Your task to perform on an android device: Open accessibility settings Image 0: 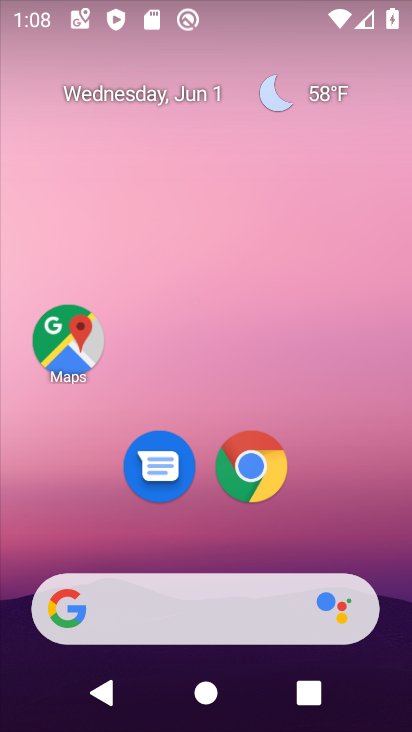
Step 0: drag from (393, 602) to (258, 243)
Your task to perform on an android device: Open accessibility settings Image 1: 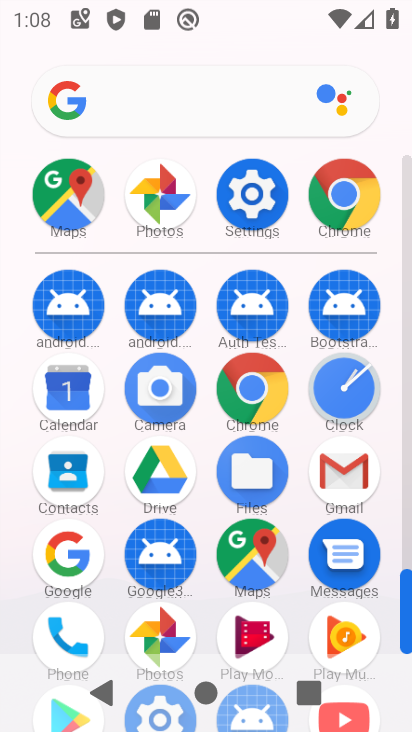
Step 1: click (259, 183)
Your task to perform on an android device: Open accessibility settings Image 2: 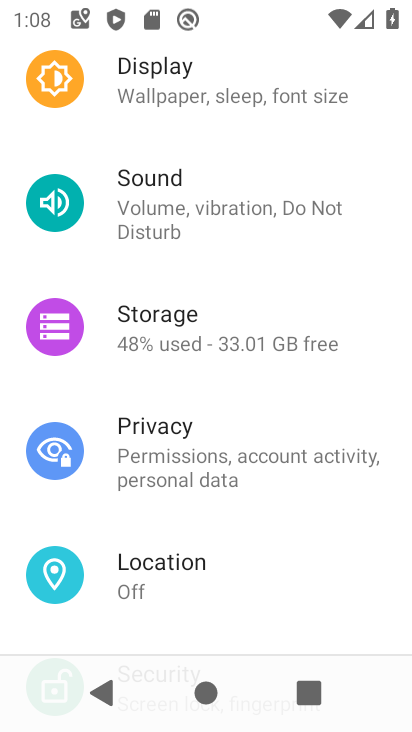
Step 2: drag from (265, 535) to (193, 239)
Your task to perform on an android device: Open accessibility settings Image 3: 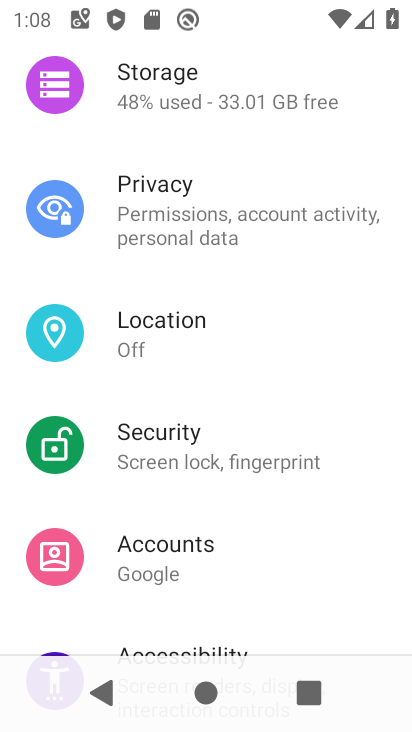
Step 3: drag from (231, 593) to (198, 337)
Your task to perform on an android device: Open accessibility settings Image 4: 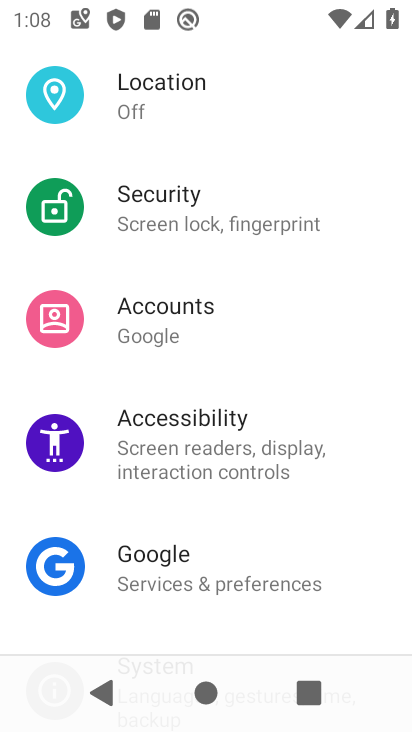
Step 4: click (220, 464)
Your task to perform on an android device: Open accessibility settings Image 5: 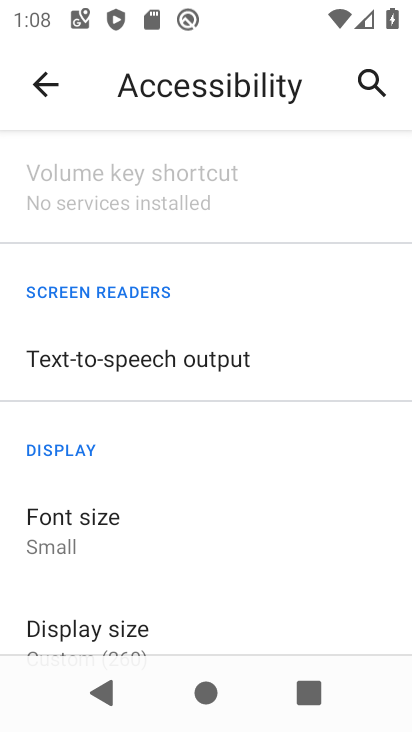
Step 5: task complete